Your task to perform on an android device: turn pop-ups on in chrome Image 0: 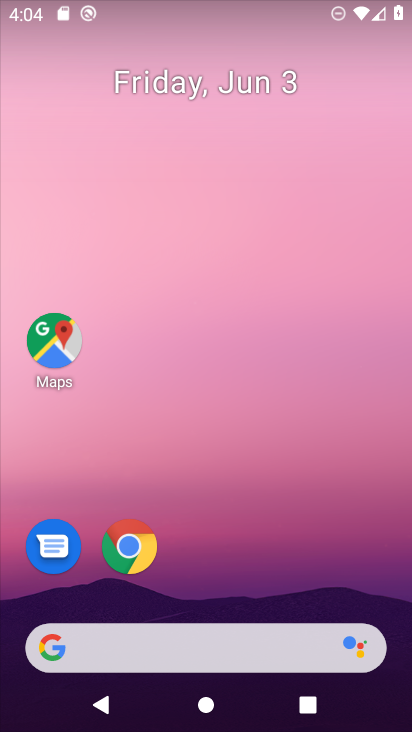
Step 0: click (131, 540)
Your task to perform on an android device: turn pop-ups on in chrome Image 1: 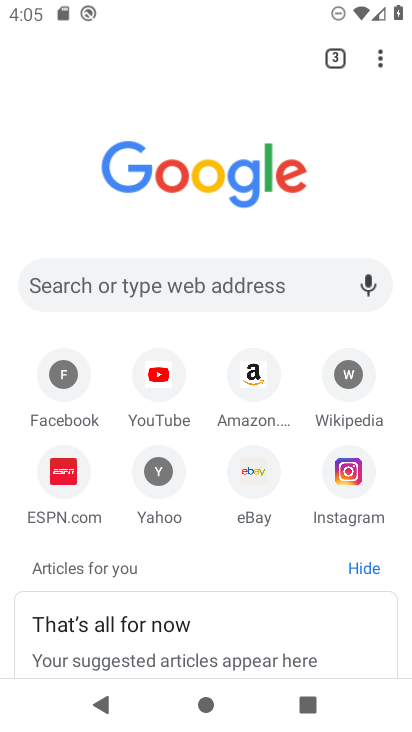
Step 1: click (378, 62)
Your task to perform on an android device: turn pop-ups on in chrome Image 2: 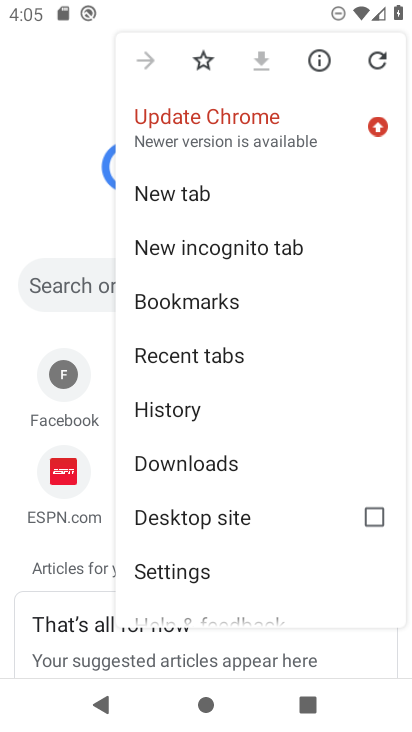
Step 2: click (230, 568)
Your task to perform on an android device: turn pop-ups on in chrome Image 3: 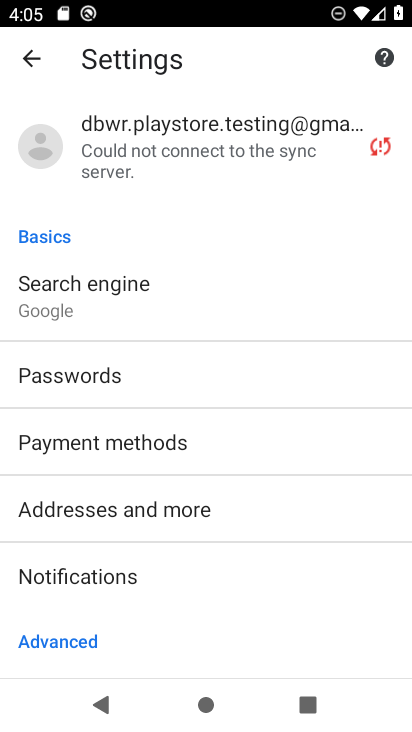
Step 3: drag from (256, 498) to (242, 189)
Your task to perform on an android device: turn pop-ups on in chrome Image 4: 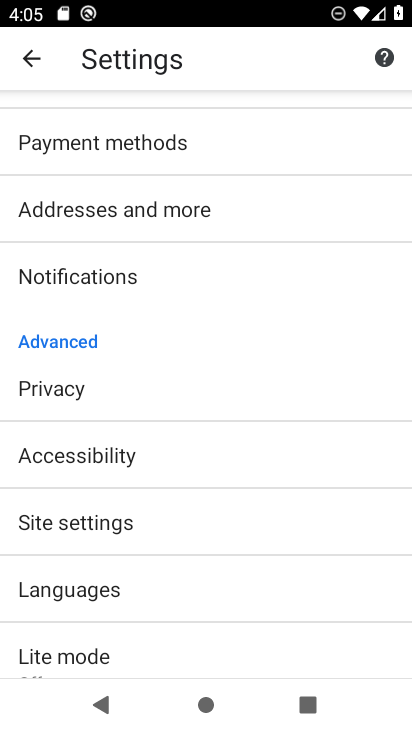
Step 4: click (186, 510)
Your task to perform on an android device: turn pop-ups on in chrome Image 5: 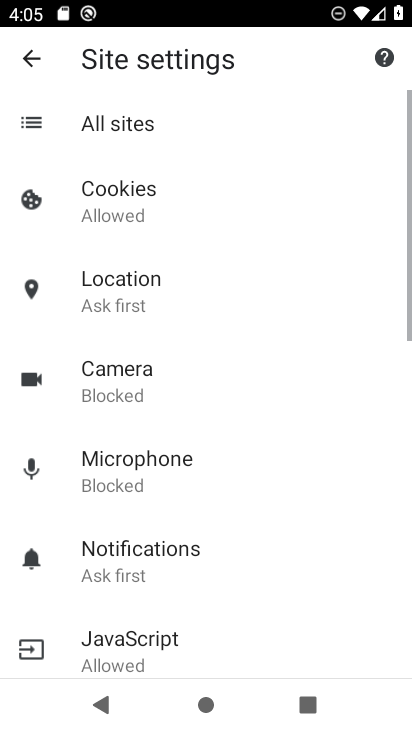
Step 5: drag from (204, 491) to (209, 246)
Your task to perform on an android device: turn pop-ups on in chrome Image 6: 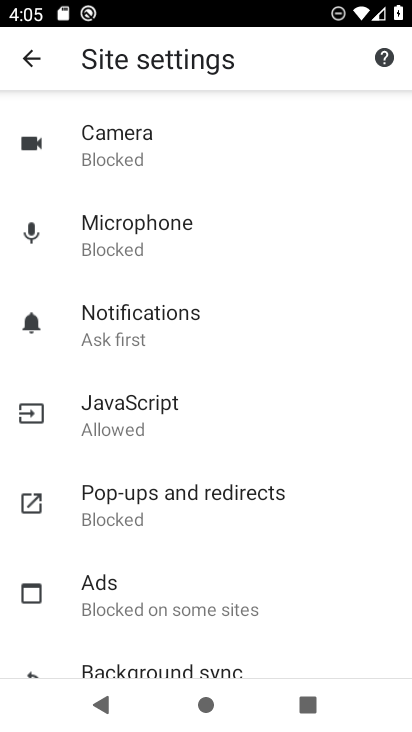
Step 6: click (207, 505)
Your task to perform on an android device: turn pop-ups on in chrome Image 7: 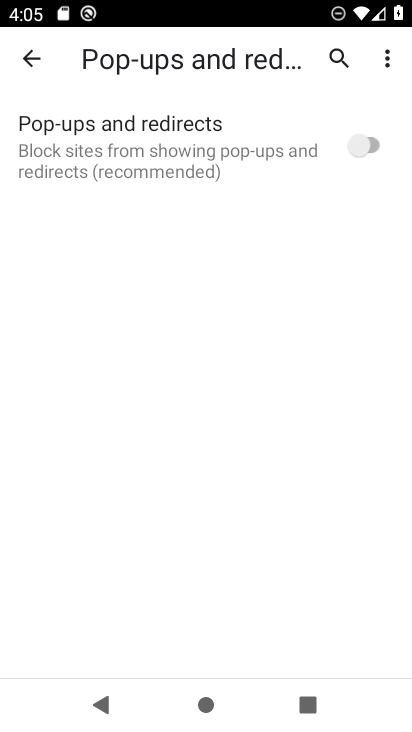
Step 7: click (363, 133)
Your task to perform on an android device: turn pop-ups on in chrome Image 8: 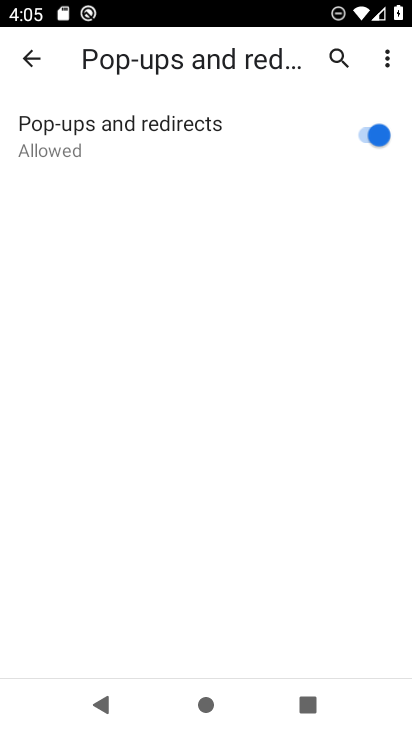
Step 8: task complete